Your task to perform on an android device: change the clock display to digital Image 0: 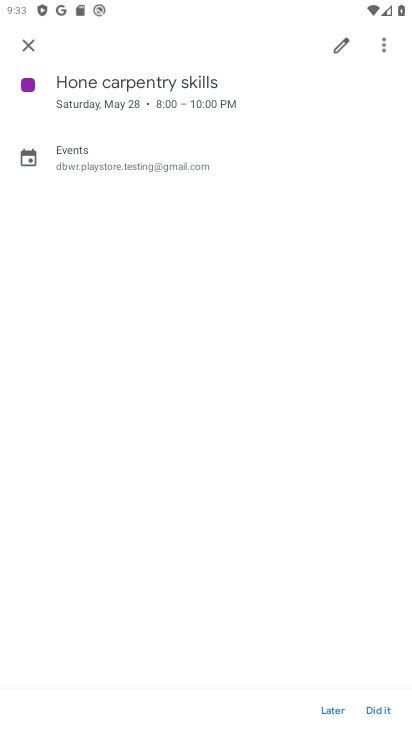
Step 0: press home button
Your task to perform on an android device: change the clock display to digital Image 1: 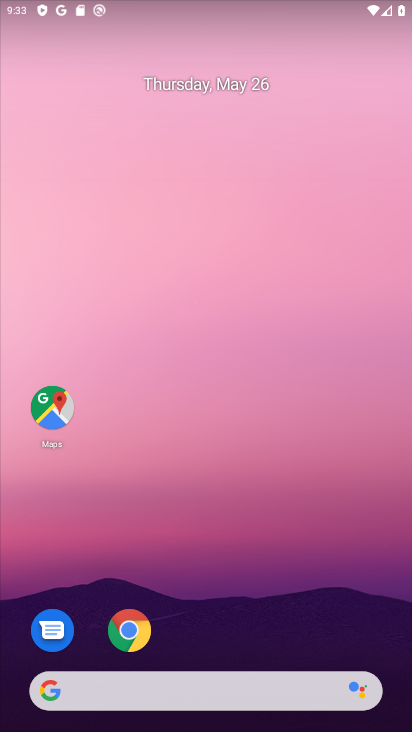
Step 1: drag from (200, 652) to (220, 118)
Your task to perform on an android device: change the clock display to digital Image 2: 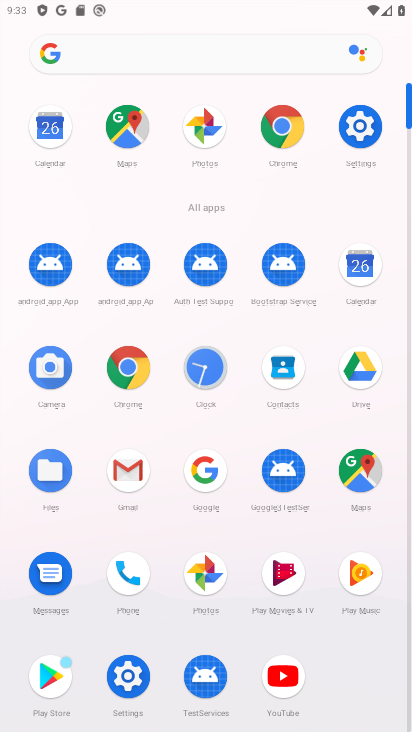
Step 2: click (202, 373)
Your task to perform on an android device: change the clock display to digital Image 3: 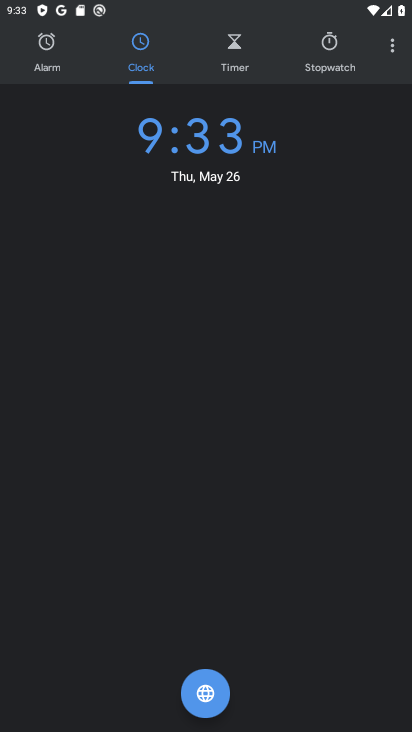
Step 3: click (397, 57)
Your task to perform on an android device: change the clock display to digital Image 4: 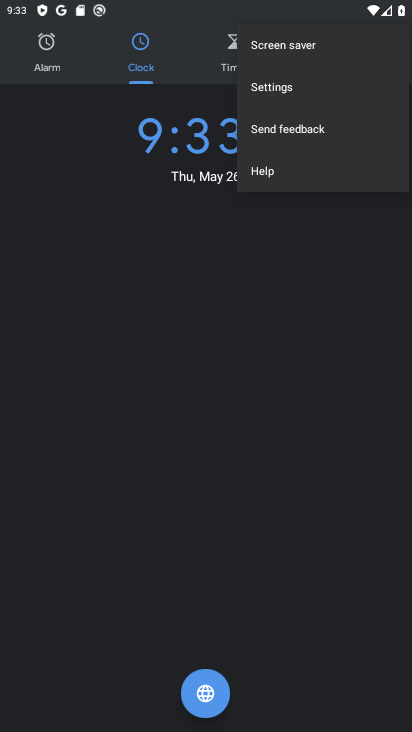
Step 4: click (260, 97)
Your task to perform on an android device: change the clock display to digital Image 5: 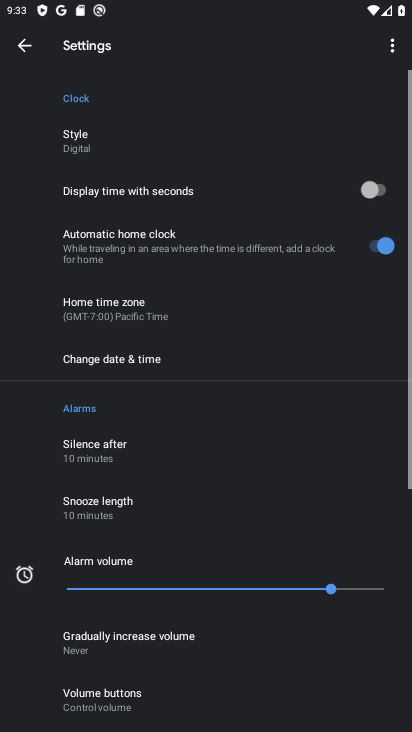
Step 5: click (98, 157)
Your task to perform on an android device: change the clock display to digital Image 6: 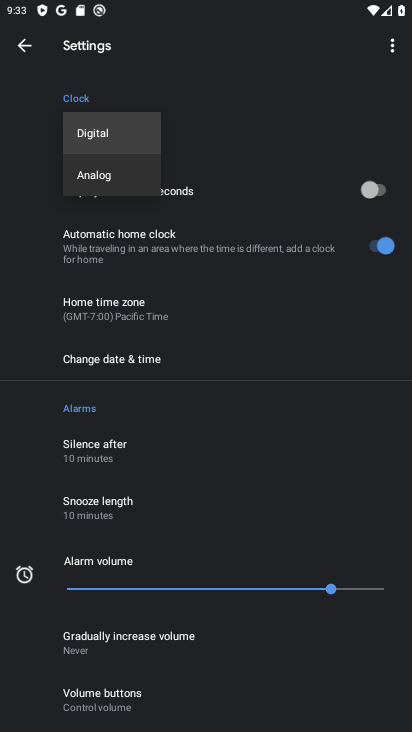
Step 6: click (96, 149)
Your task to perform on an android device: change the clock display to digital Image 7: 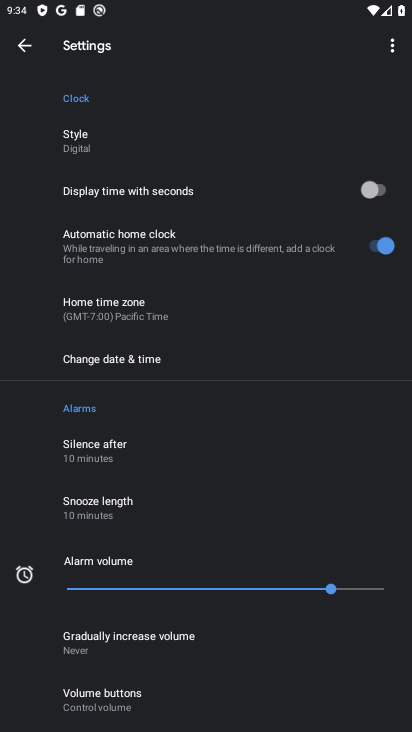
Step 7: task complete